Your task to perform on an android device: Open location settings Image 0: 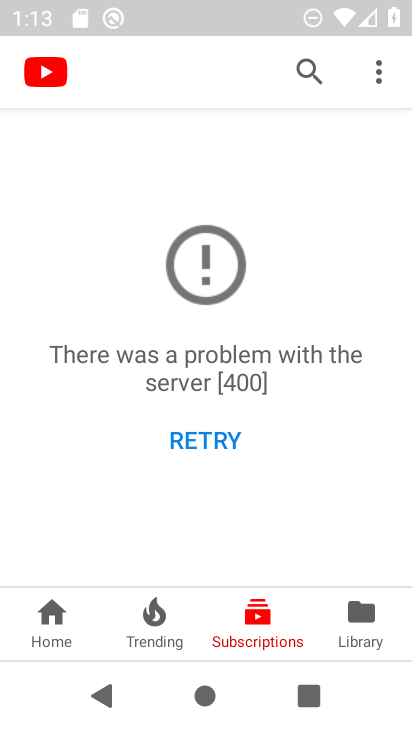
Step 0: press home button
Your task to perform on an android device: Open location settings Image 1: 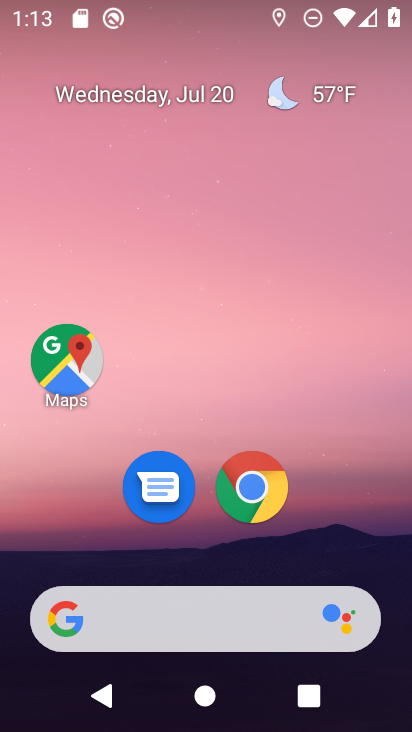
Step 1: drag from (372, 568) to (371, 288)
Your task to perform on an android device: Open location settings Image 2: 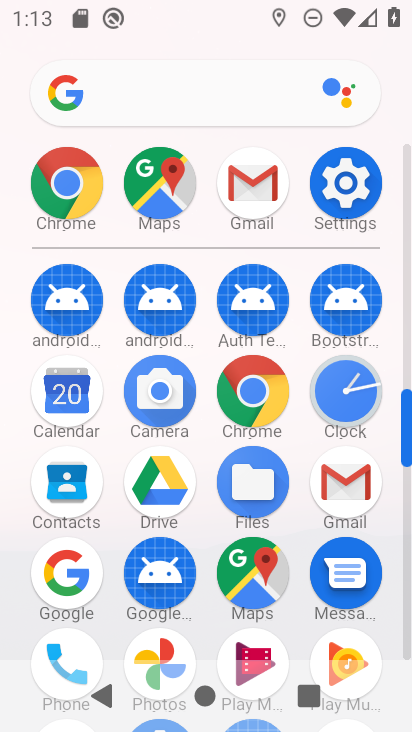
Step 2: click (308, 176)
Your task to perform on an android device: Open location settings Image 3: 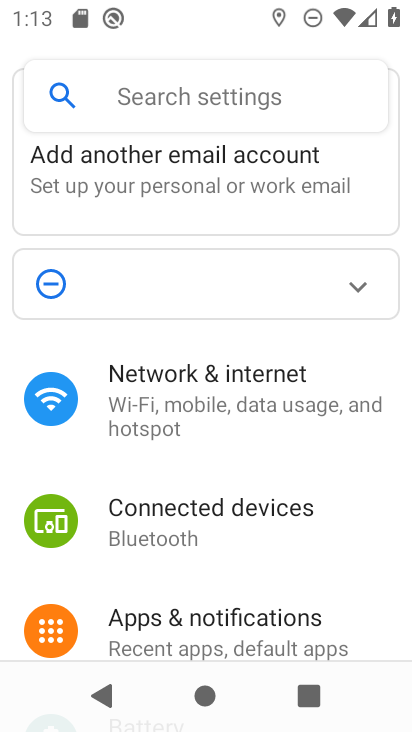
Step 3: drag from (348, 569) to (351, 492)
Your task to perform on an android device: Open location settings Image 4: 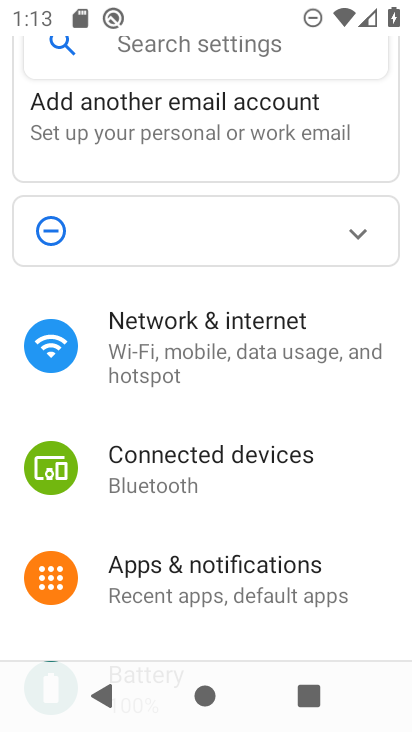
Step 4: drag from (351, 543) to (354, 426)
Your task to perform on an android device: Open location settings Image 5: 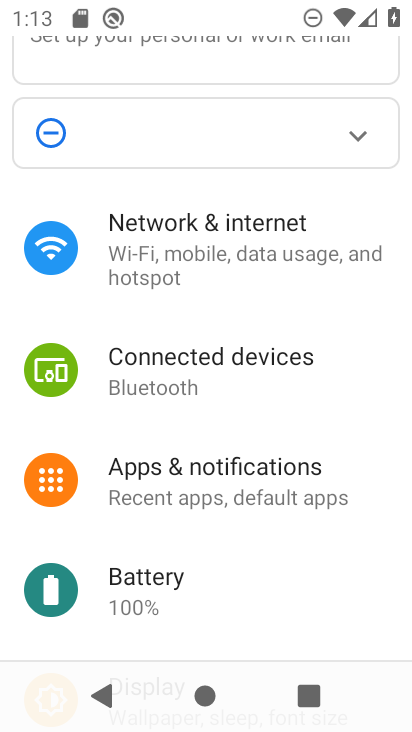
Step 5: drag from (354, 570) to (376, 432)
Your task to perform on an android device: Open location settings Image 6: 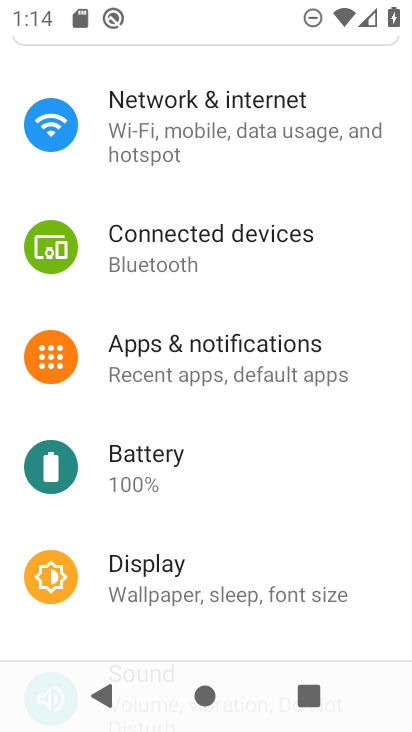
Step 6: drag from (367, 609) to (361, 455)
Your task to perform on an android device: Open location settings Image 7: 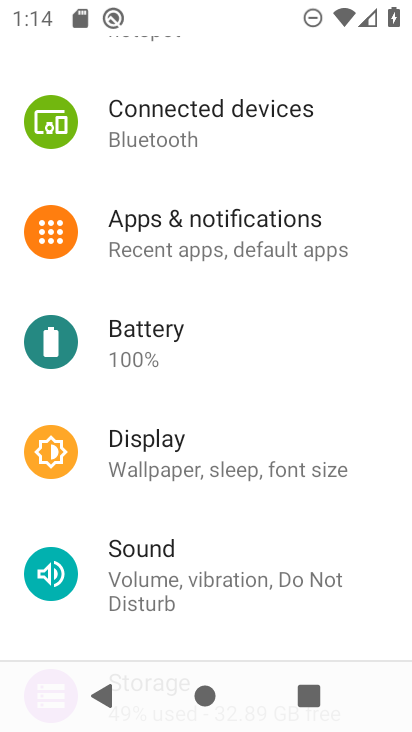
Step 7: drag from (352, 604) to (348, 468)
Your task to perform on an android device: Open location settings Image 8: 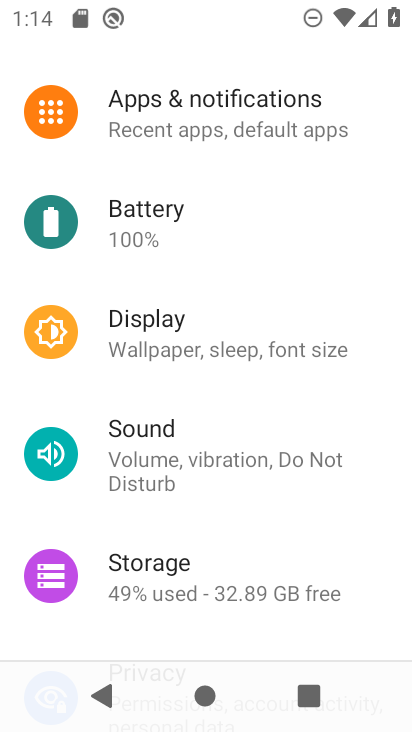
Step 8: drag from (343, 588) to (344, 540)
Your task to perform on an android device: Open location settings Image 9: 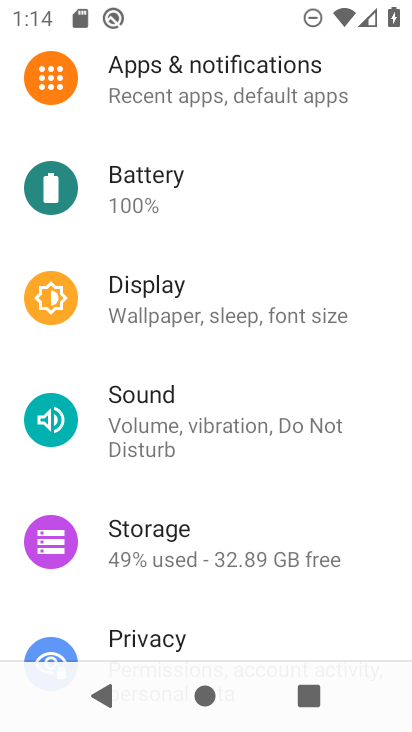
Step 9: drag from (355, 601) to (354, 476)
Your task to perform on an android device: Open location settings Image 10: 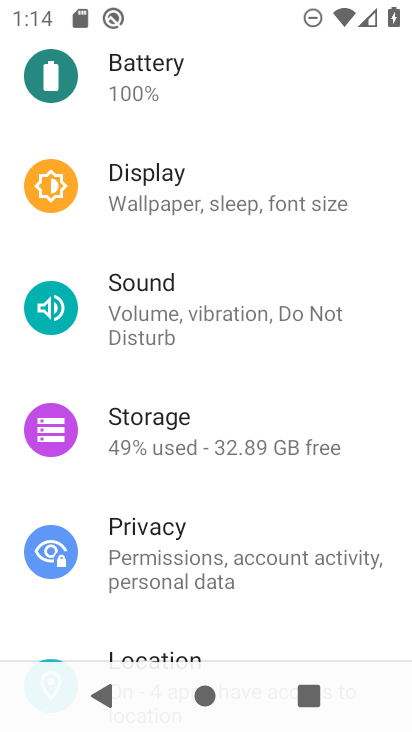
Step 10: drag from (348, 620) to (354, 571)
Your task to perform on an android device: Open location settings Image 11: 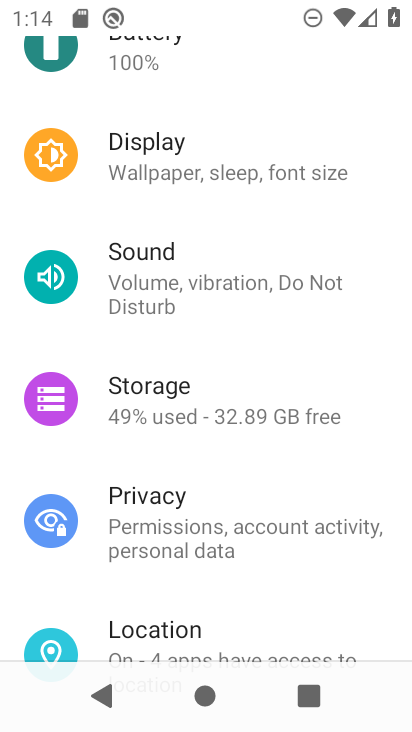
Step 11: drag from (356, 571) to (368, 435)
Your task to perform on an android device: Open location settings Image 12: 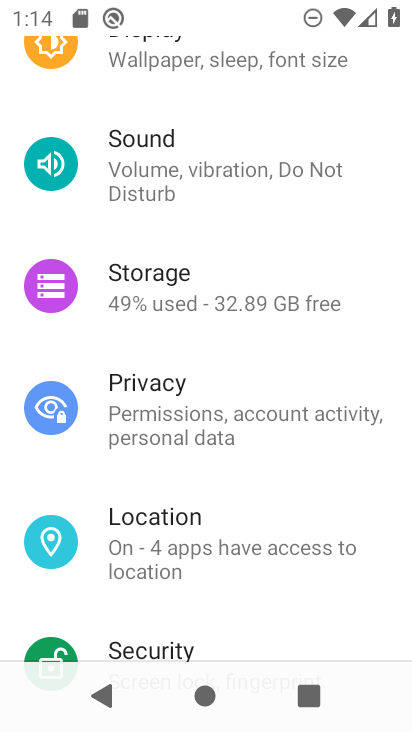
Step 12: click (299, 568)
Your task to perform on an android device: Open location settings Image 13: 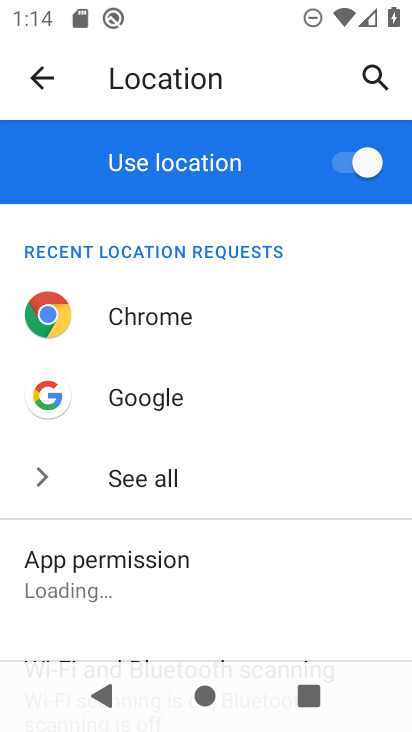
Step 13: task complete